Your task to perform on an android device: open a new tab in the chrome app Image 0: 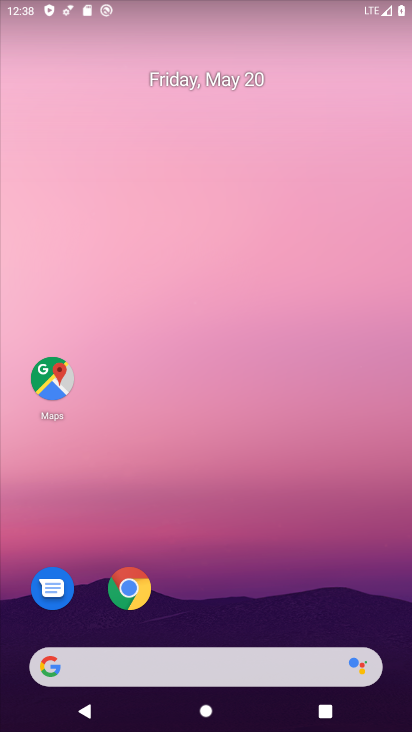
Step 0: click (127, 589)
Your task to perform on an android device: open a new tab in the chrome app Image 1: 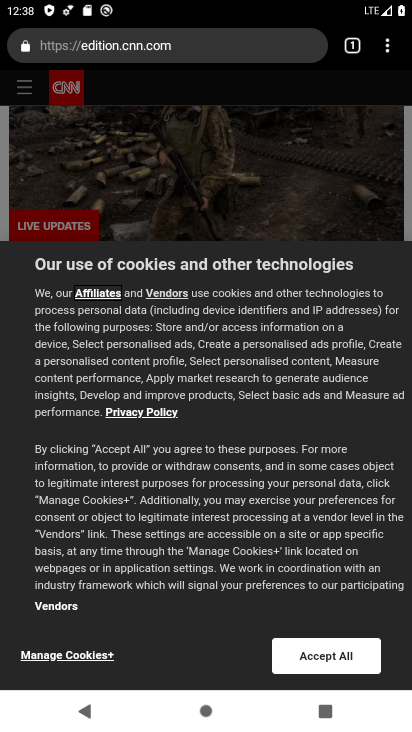
Step 1: click (386, 46)
Your task to perform on an android device: open a new tab in the chrome app Image 2: 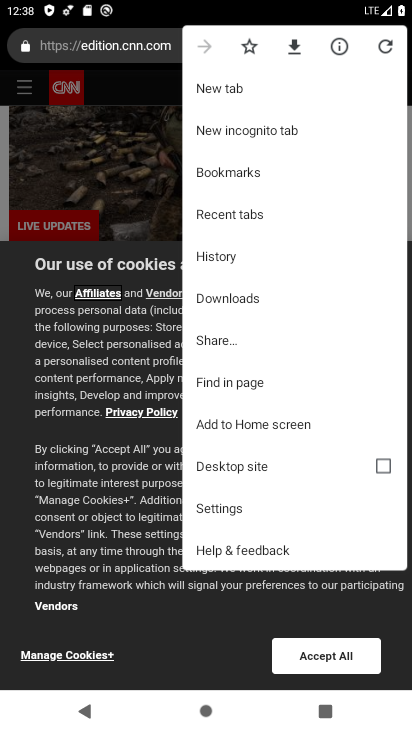
Step 2: click (216, 83)
Your task to perform on an android device: open a new tab in the chrome app Image 3: 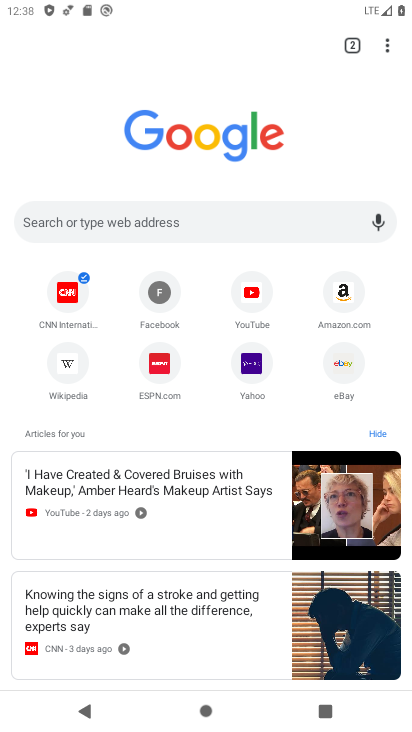
Step 3: task complete